Your task to perform on an android device: Open Reddit.com Image 0: 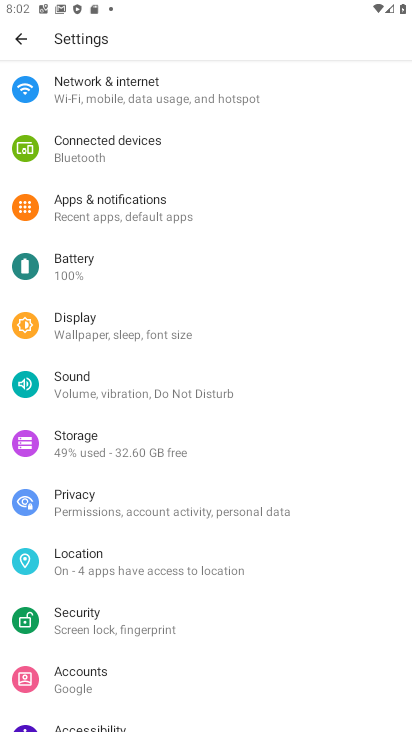
Step 0: press home button
Your task to perform on an android device: Open Reddit.com Image 1: 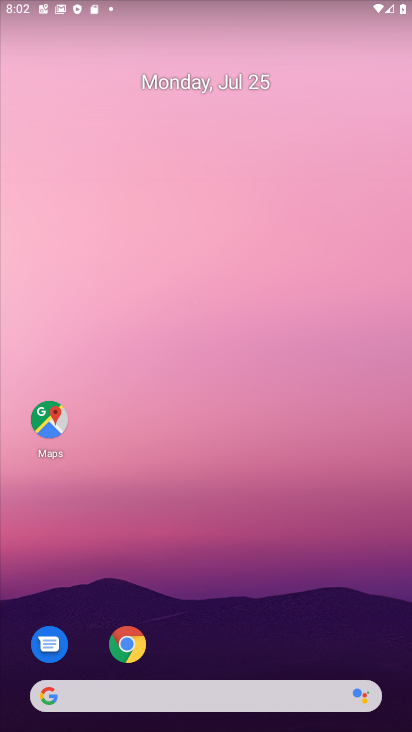
Step 1: drag from (199, 584) to (280, 72)
Your task to perform on an android device: Open Reddit.com Image 2: 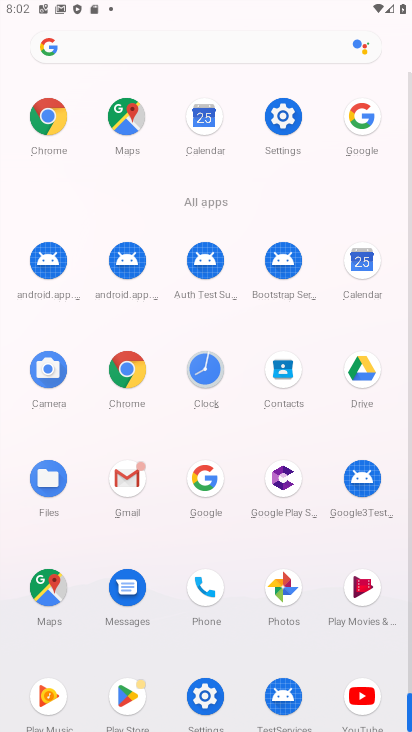
Step 2: click (135, 370)
Your task to perform on an android device: Open Reddit.com Image 3: 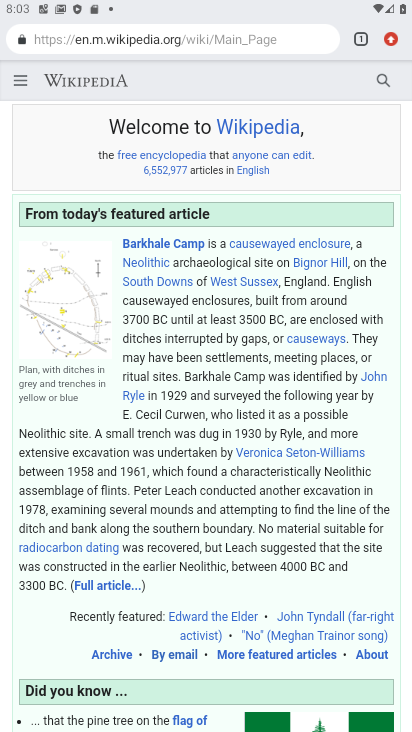
Step 3: click (363, 42)
Your task to perform on an android device: Open Reddit.com Image 4: 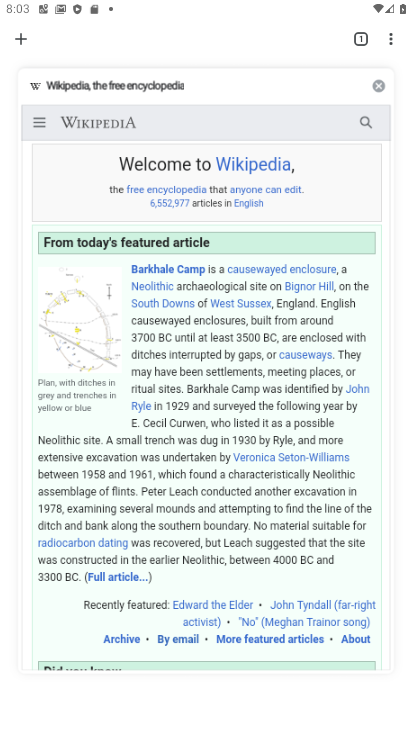
Step 4: click (34, 40)
Your task to perform on an android device: Open Reddit.com Image 5: 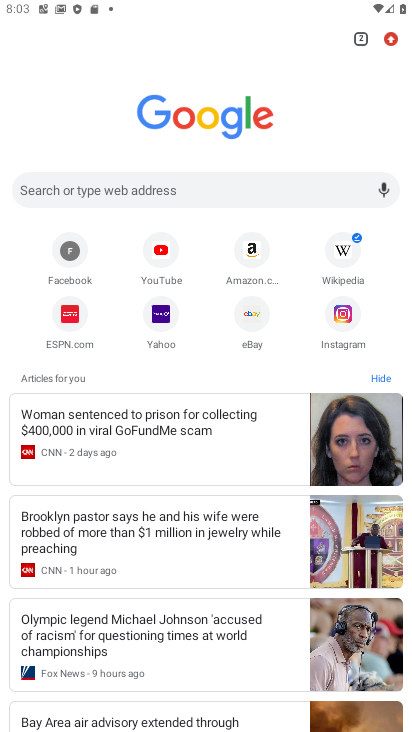
Step 5: click (141, 178)
Your task to perform on an android device: Open Reddit.com Image 6: 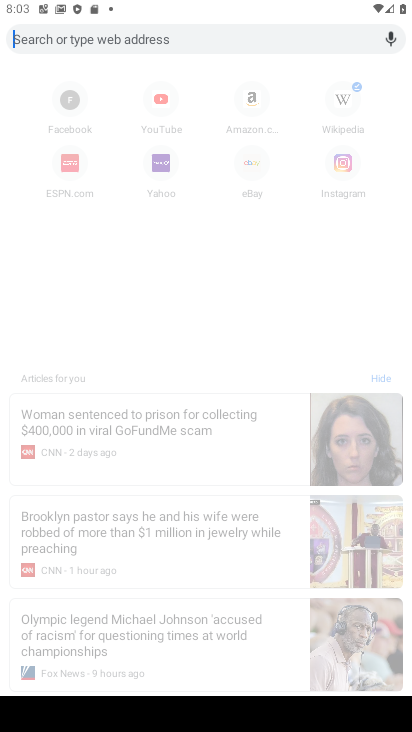
Step 6: type " Reddit.com"
Your task to perform on an android device: Open Reddit.com Image 7: 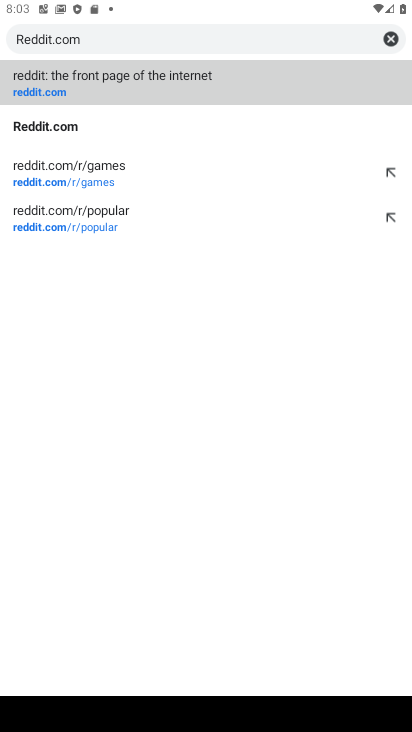
Step 7: click (132, 83)
Your task to perform on an android device: Open Reddit.com Image 8: 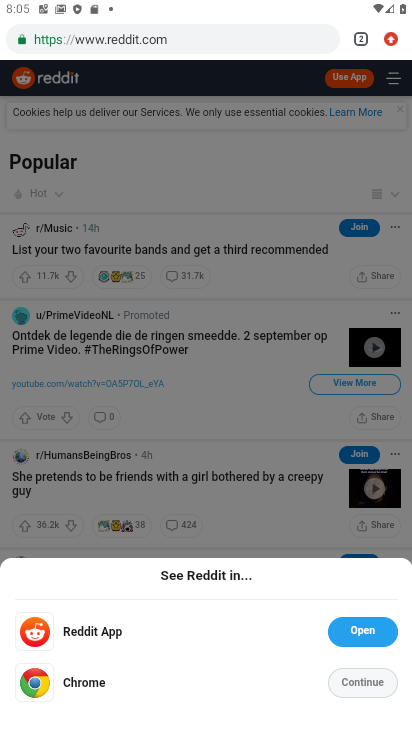
Step 8: click (379, 690)
Your task to perform on an android device: Open Reddit.com Image 9: 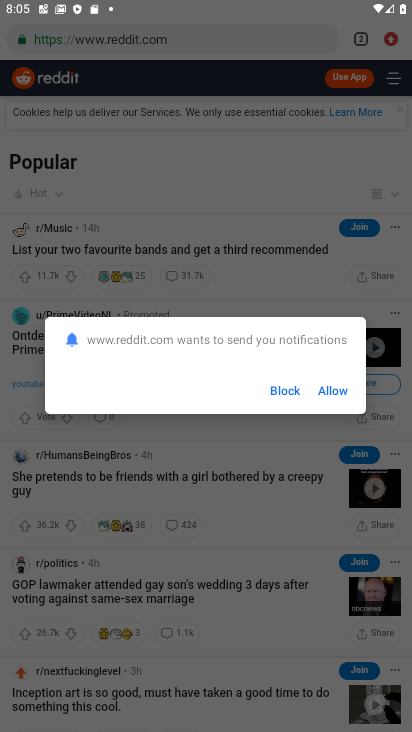
Step 9: click (325, 391)
Your task to perform on an android device: Open Reddit.com Image 10: 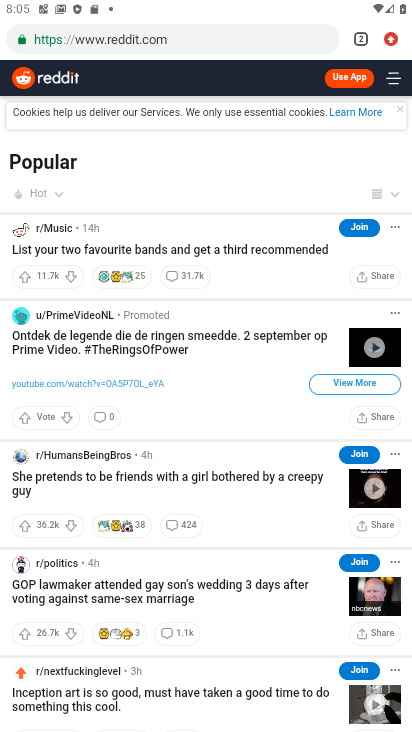
Step 10: task complete